Your task to perform on an android device: turn off javascript in the chrome app Image 0: 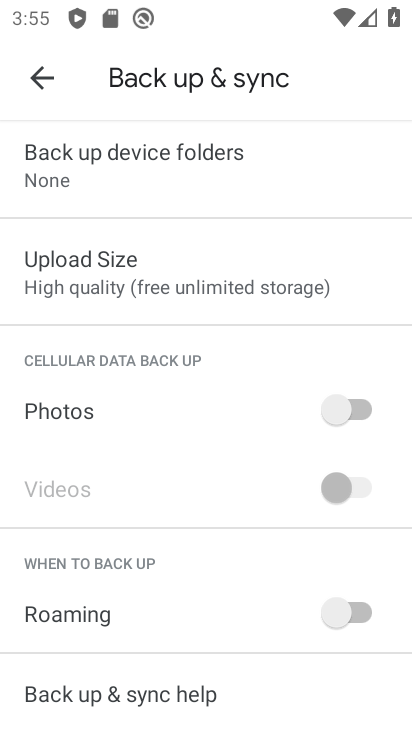
Step 0: press home button
Your task to perform on an android device: turn off javascript in the chrome app Image 1: 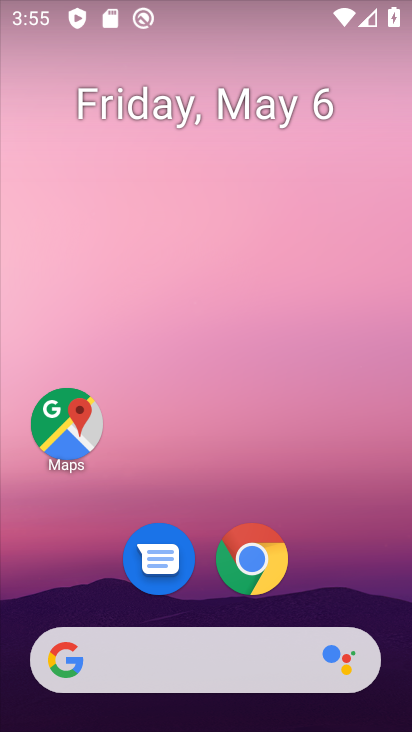
Step 1: click (237, 558)
Your task to perform on an android device: turn off javascript in the chrome app Image 2: 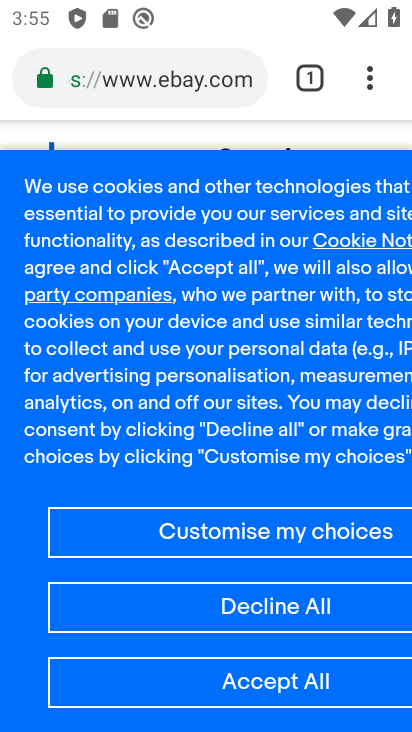
Step 2: click (373, 81)
Your task to perform on an android device: turn off javascript in the chrome app Image 3: 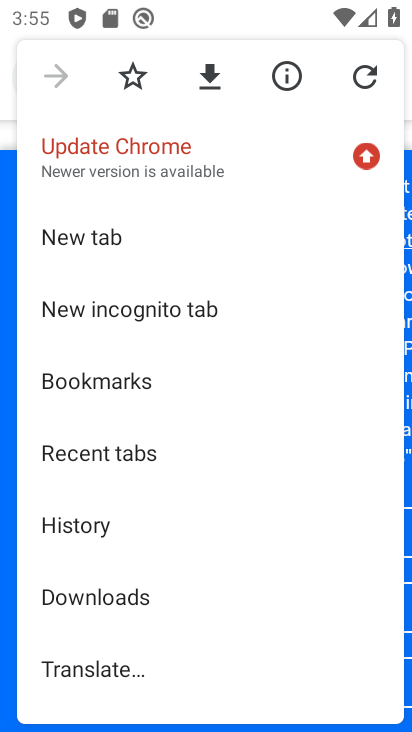
Step 3: drag from (149, 645) to (153, 257)
Your task to perform on an android device: turn off javascript in the chrome app Image 4: 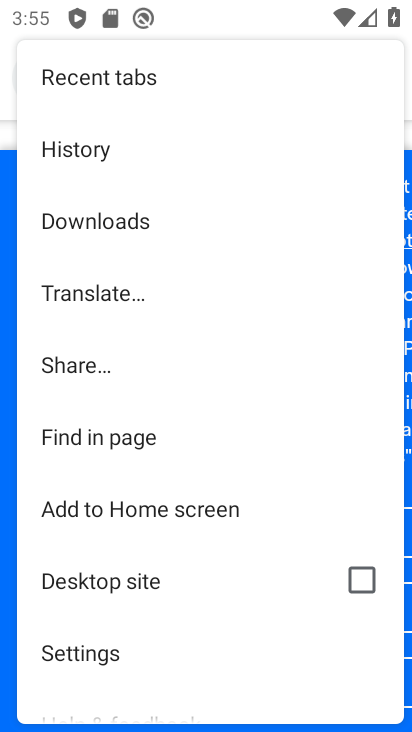
Step 4: click (70, 650)
Your task to perform on an android device: turn off javascript in the chrome app Image 5: 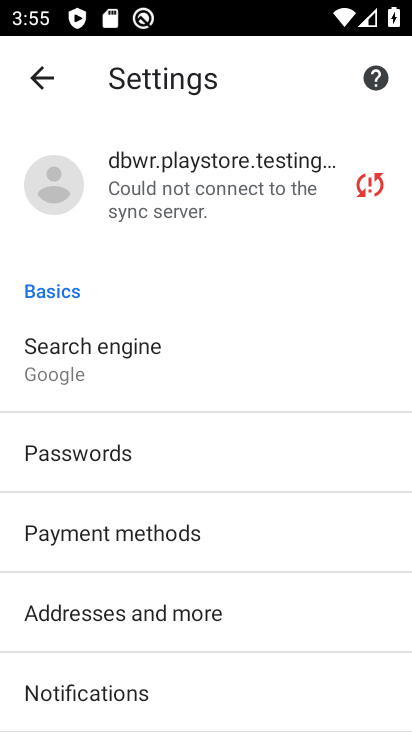
Step 5: drag from (154, 703) to (205, 284)
Your task to perform on an android device: turn off javascript in the chrome app Image 6: 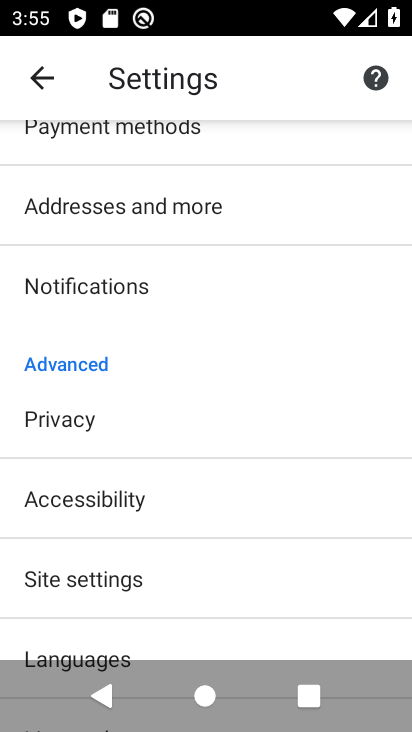
Step 6: click (100, 580)
Your task to perform on an android device: turn off javascript in the chrome app Image 7: 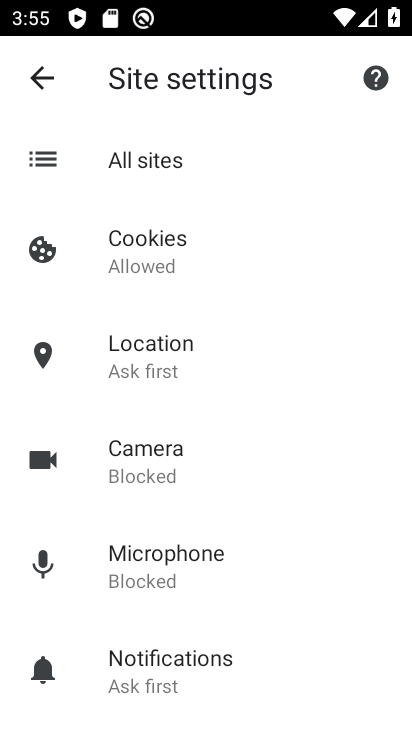
Step 7: drag from (160, 693) to (213, 314)
Your task to perform on an android device: turn off javascript in the chrome app Image 8: 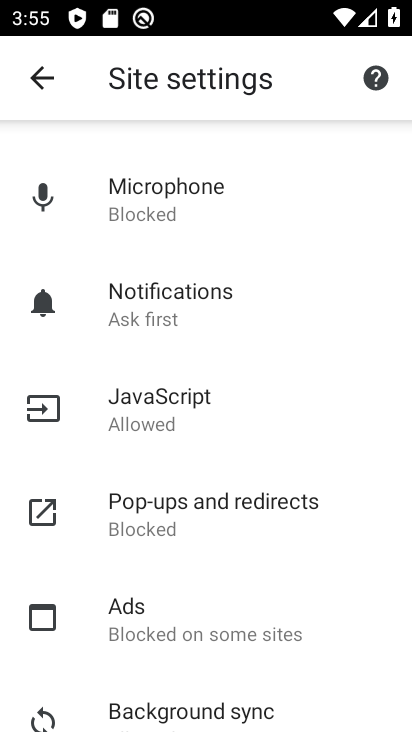
Step 8: click (183, 403)
Your task to perform on an android device: turn off javascript in the chrome app Image 9: 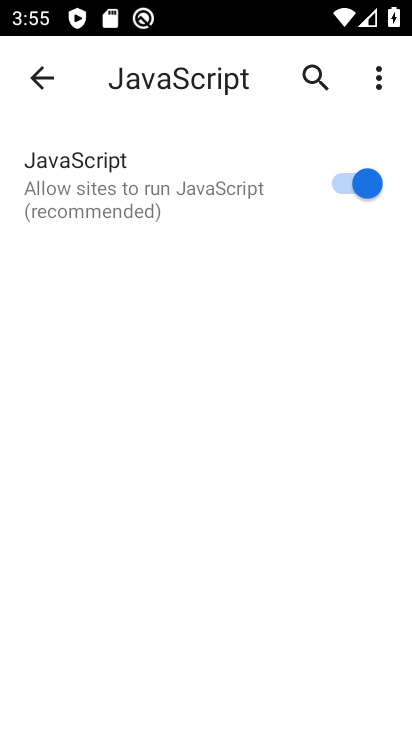
Step 9: click (343, 182)
Your task to perform on an android device: turn off javascript in the chrome app Image 10: 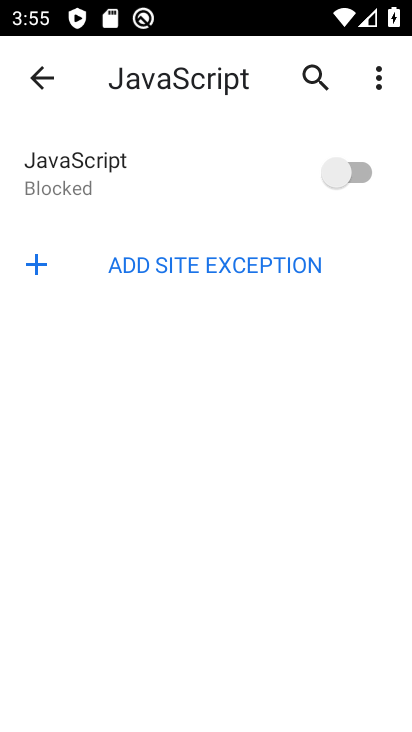
Step 10: task complete